Your task to perform on an android device: change text size in settings app Image 0: 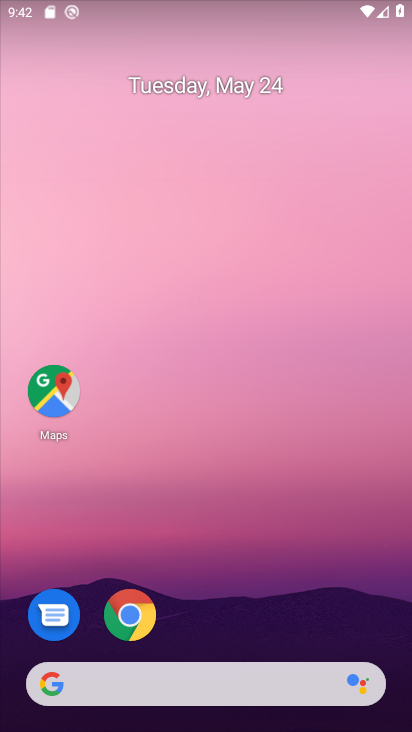
Step 0: drag from (363, 592) to (345, 132)
Your task to perform on an android device: change text size in settings app Image 1: 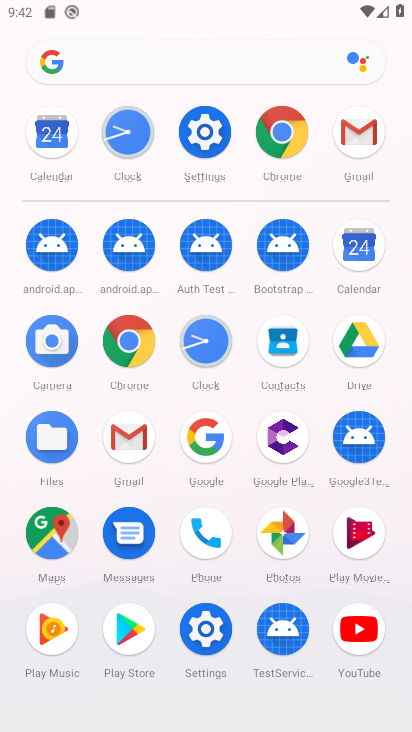
Step 1: click (202, 632)
Your task to perform on an android device: change text size in settings app Image 2: 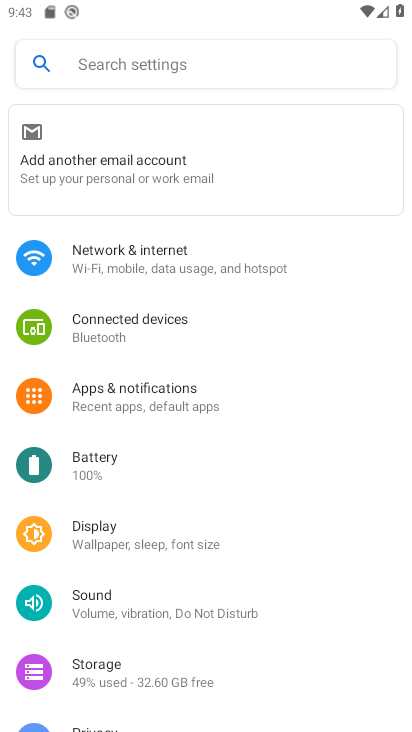
Step 2: drag from (269, 634) to (291, 439)
Your task to perform on an android device: change text size in settings app Image 3: 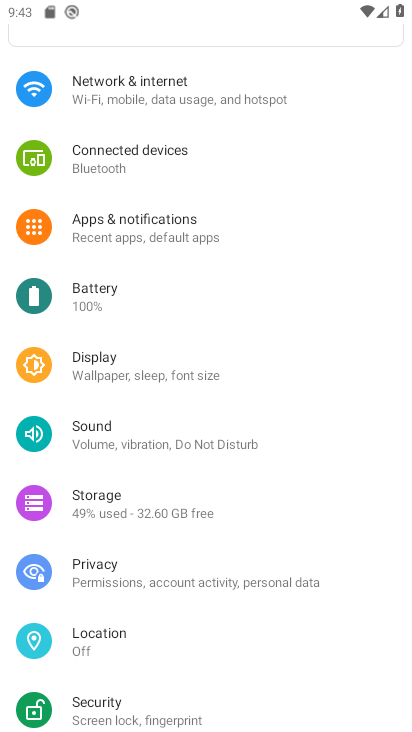
Step 3: click (160, 371)
Your task to perform on an android device: change text size in settings app Image 4: 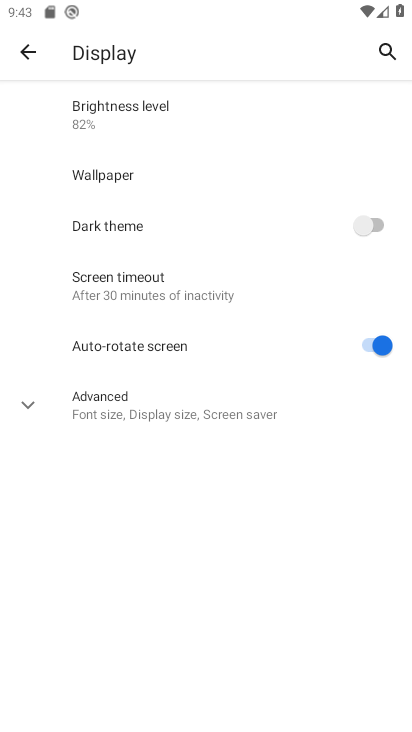
Step 4: click (178, 411)
Your task to perform on an android device: change text size in settings app Image 5: 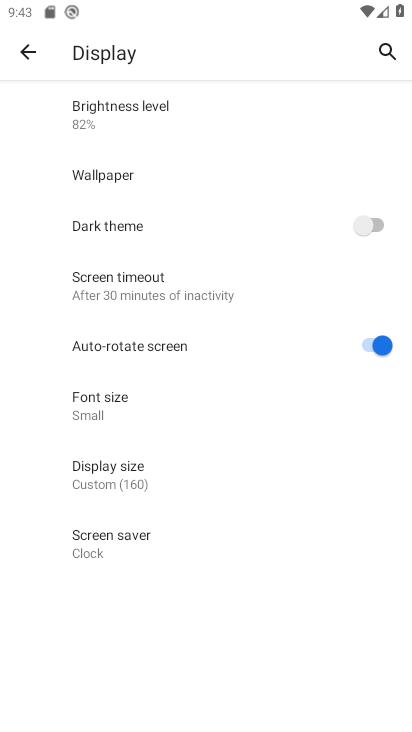
Step 5: click (112, 405)
Your task to perform on an android device: change text size in settings app Image 6: 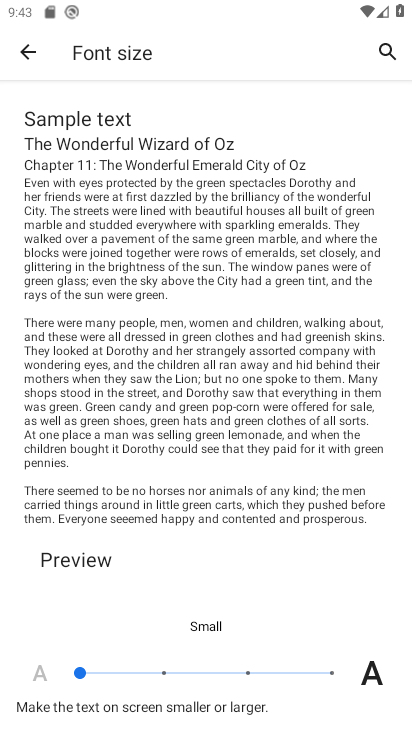
Step 6: click (159, 676)
Your task to perform on an android device: change text size in settings app Image 7: 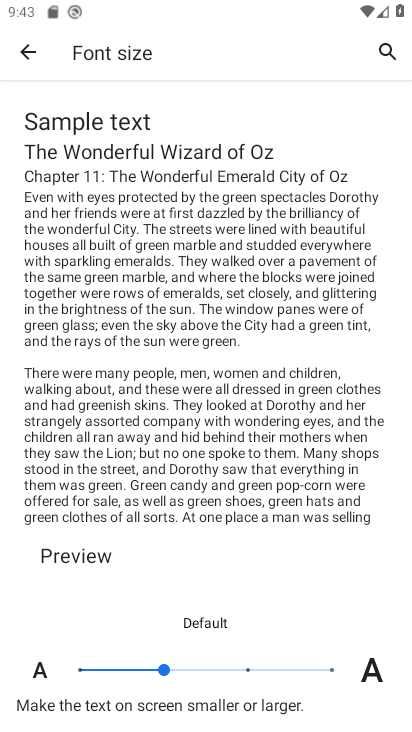
Step 7: task complete